Your task to perform on an android device: open a bookmark in the chrome app Image 0: 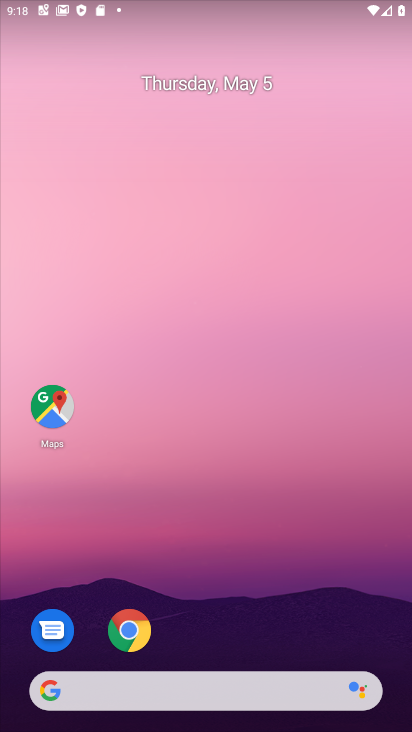
Step 0: click (135, 627)
Your task to perform on an android device: open a bookmark in the chrome app Image 1: 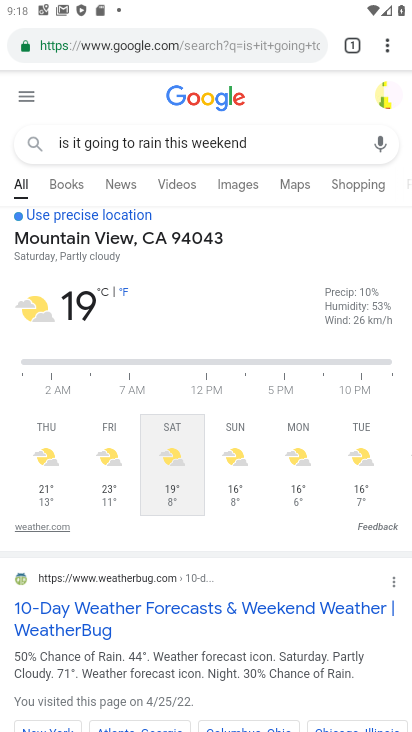
Step 1: task complete